Your task to perform on an android device: turn off javascript in the chrome app Image 0: 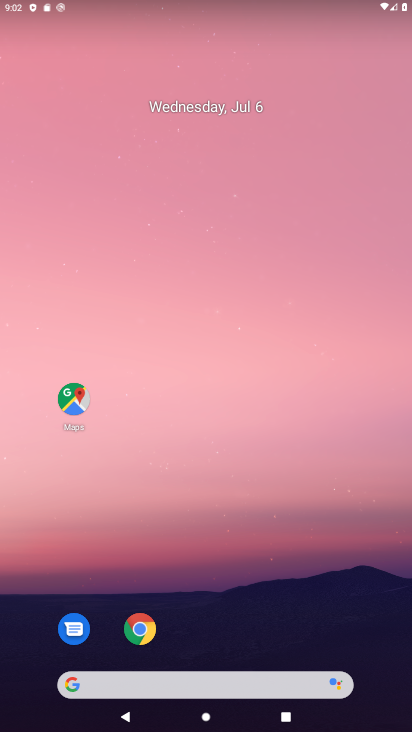
Step 0: drag from (252, 612) to (268, 0)
Your task to perform on an android device: turn off javascript in the chrome app Image 1: 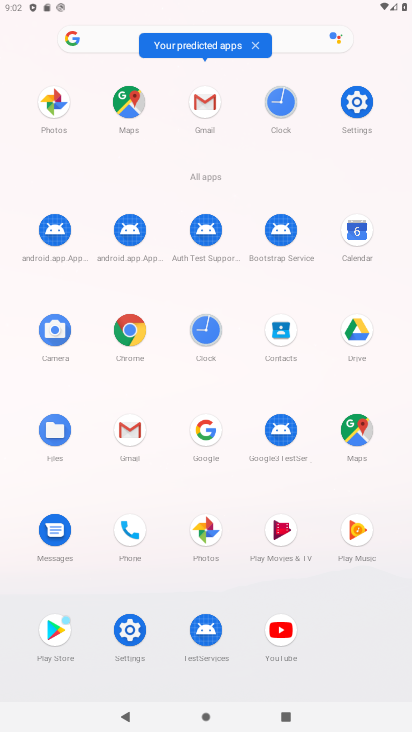
Step 1: click (130, 332)
Your task to perform on an android device: turn off javascript in the chrome app Image 2: 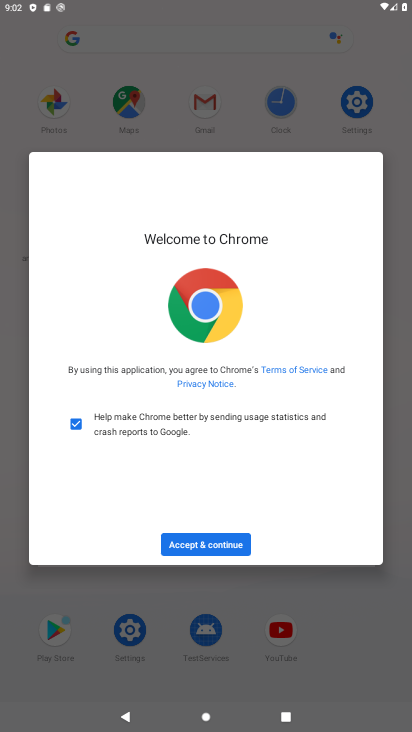
Step 2: click (213, 553)
Your task to perform on an android device: turn off javascript in the chrome app Image 3: 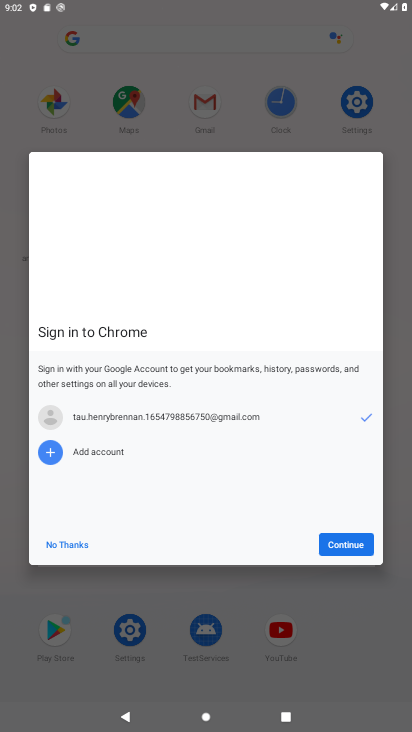
Step 3: click (360, 542)
Your task to perform on an android device: turn off javascript in the chrome app Image 4: 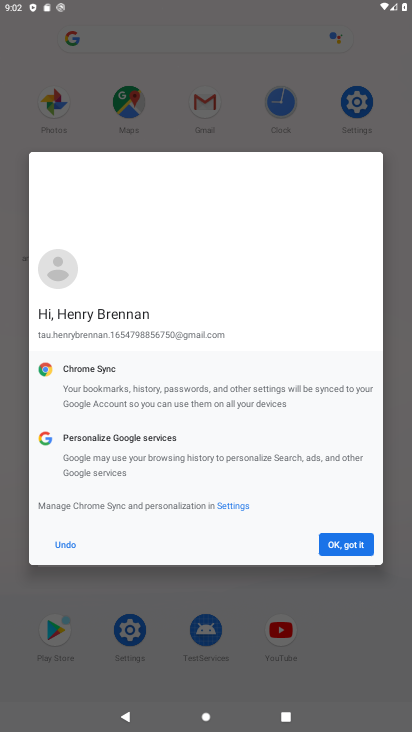
Step 4: click (354, 542)
Your task to perform on an android device: turn off javascript in the chrome app Image 5: 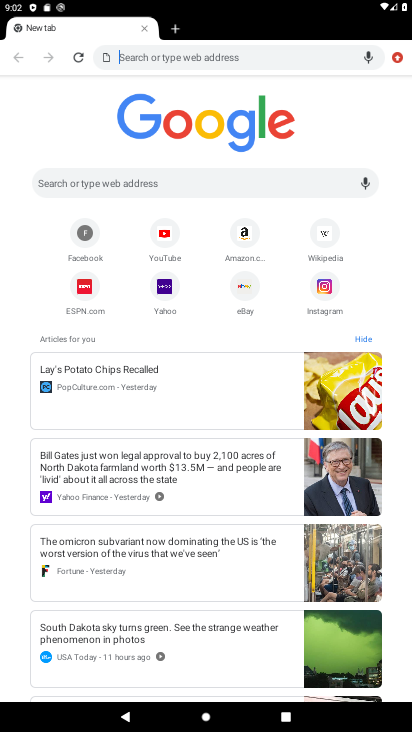
Step 5: click (396, 59)
Your task to perform on an android device: turn off javascript in the chrome app Image 6: 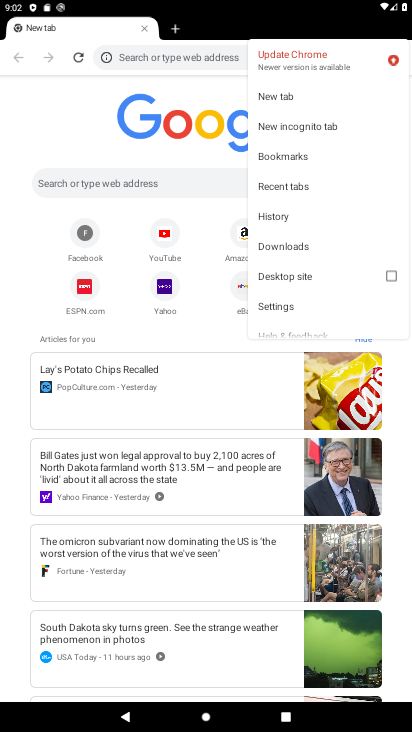
Step 6: click (282, 302)
Your task to perform on an android device: turn off javascript in the chrome app Image 7: 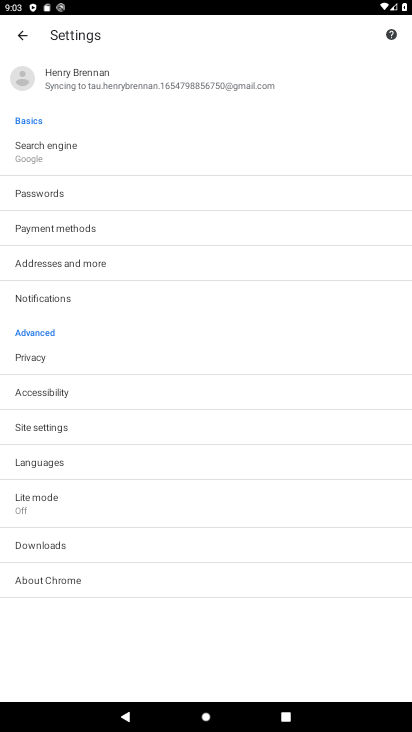
Step 7: click (52, 428)
Your task to perform on an android device: turn off javascript in the chrome app Image 8: 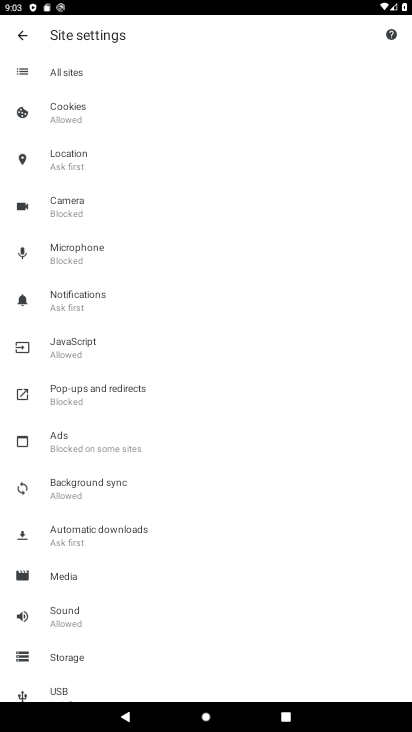
Step 8: click (91, 352)
Your task to perform on an android device: turn off javascript in the chrome app Image 9: 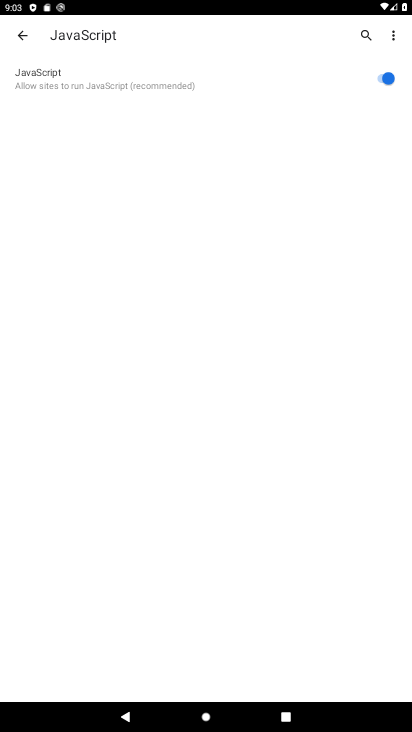
Step 9: click (380, 72)
Your task to perform on an android device: turn off javascript in the chrome app Image 10: 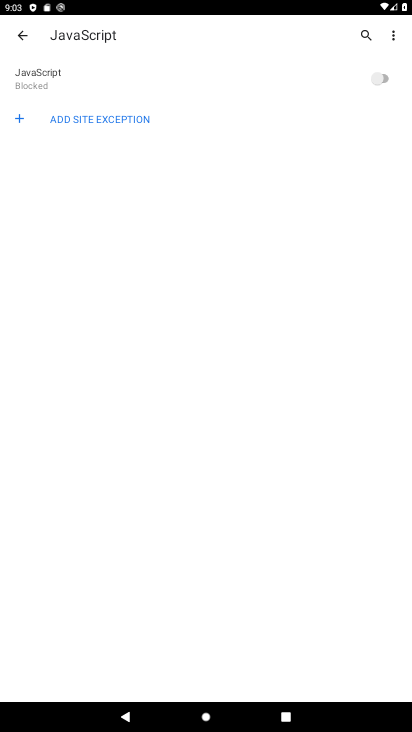
Step 10: task complete